Your task to perform on an android device: change the clock style Image 0: 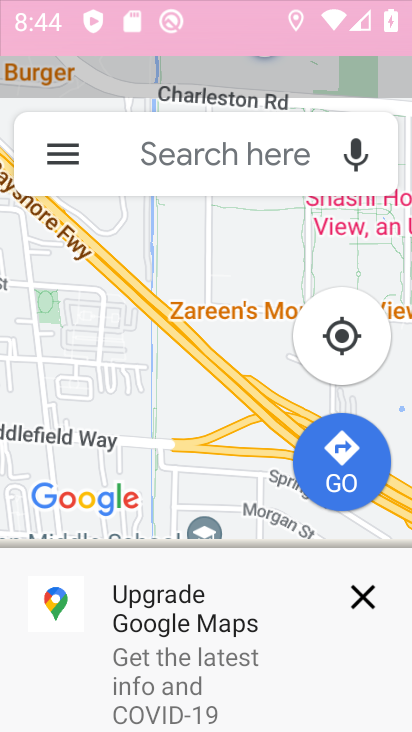
Step 0: click (297, 113)
Your task to perform on an android device: change the clock style Image 1: 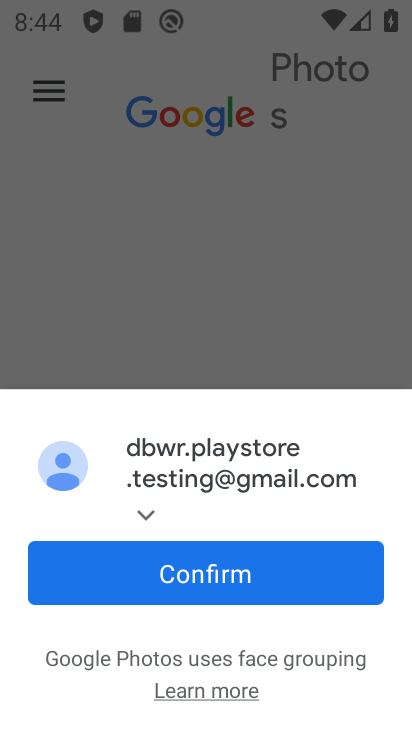
Step 1: press home button
Your task to perform on an android device: change the clock style Image 2: 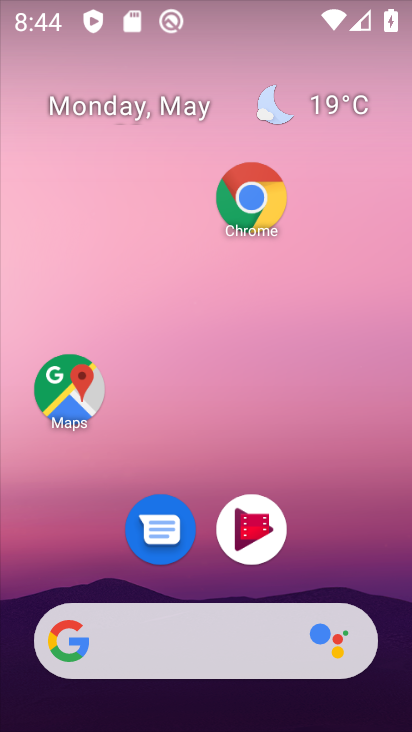
Step 2: drag from (195, 570) to (222, 183)
Your task to perform on an android device: change the clock style Image 3: 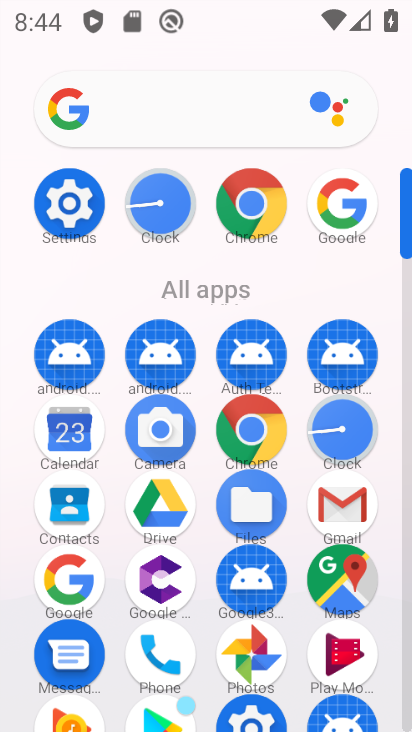
Step 3: drag from (293, 502) to (306, 221)
Your task to perform on an android device: change the clock style Image 4: 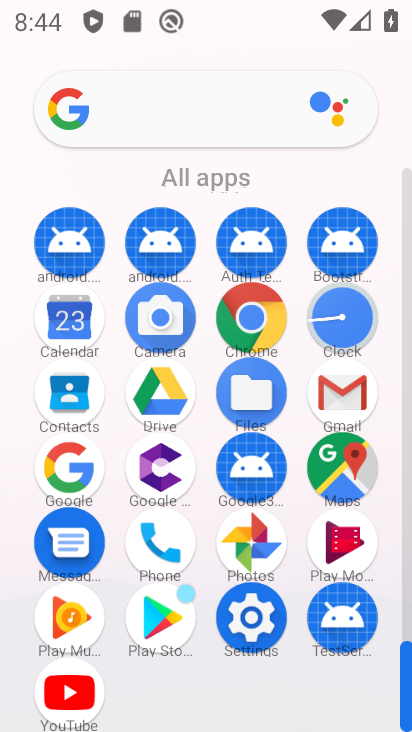
Step 4: click (339, 336)
Your task to perform on an android device: change the clock style Image 5: 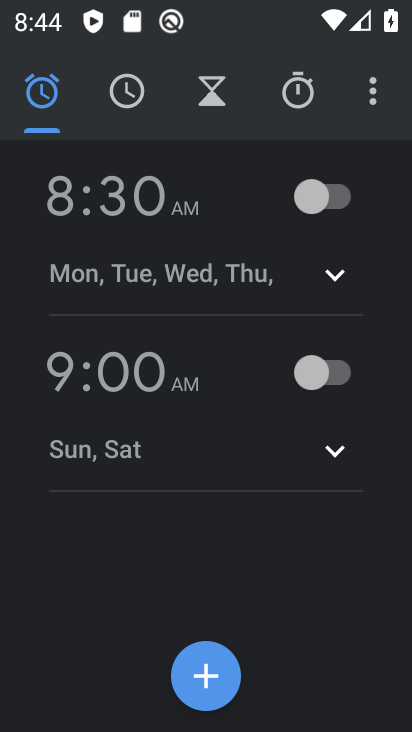
Step 5: click (377, 97)
Your task to perform on an android device: change the clock style Image 6: 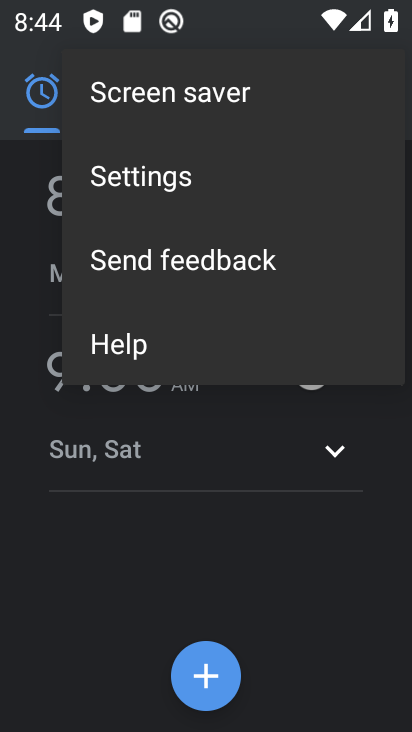
Step 6: click (181, 178)
Your task to perform on an android device: change the clock style Image 7: 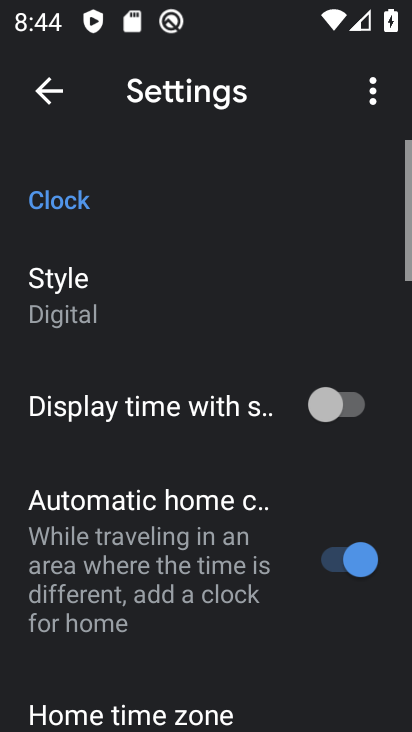
Step 7: click (70, 296)
Your task to perform on an android device: change the clock style Image 8: 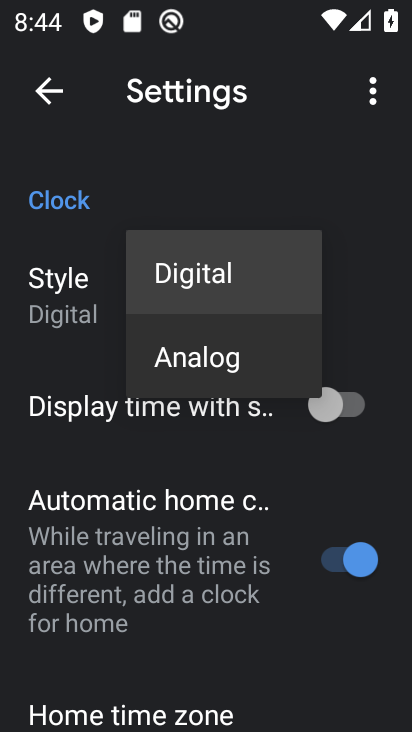
Step 8: click (191, 369)
Your task to perform on an android device: change the clock style Image 9: 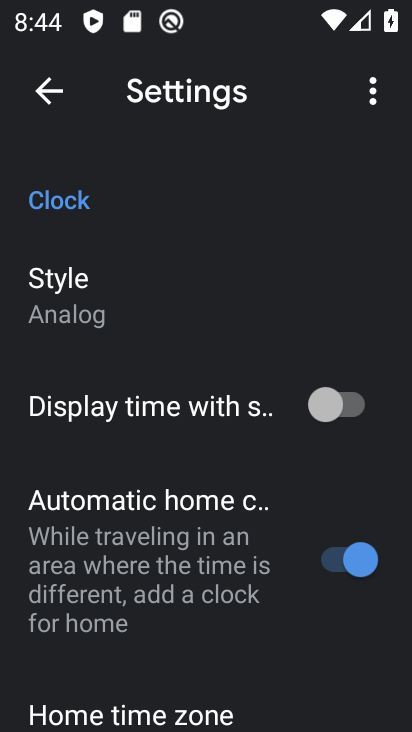
Step 9: task complete